Your task to perform on an android device: toggle sleep mode Image 0: 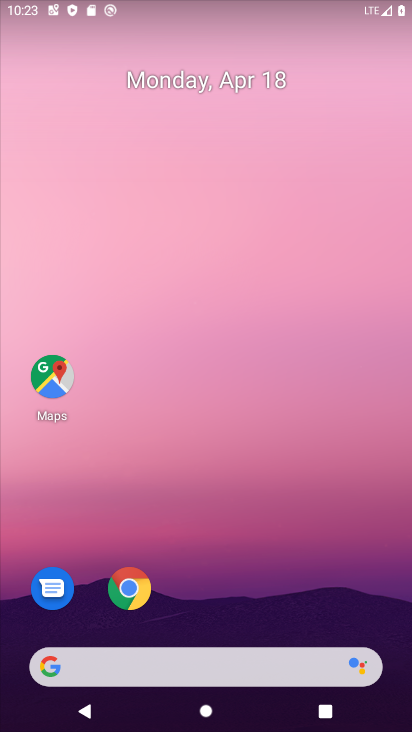
Step 0: drag from (398, 640) to (304, 92)
Your task to perform on an android device: toggle sleep mode Image 1: 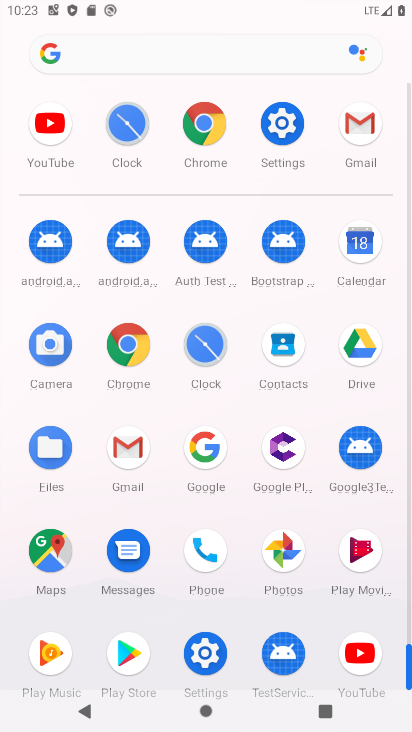
Step 1: click (204, 650)
Your task to perform on an android device: toggle sleep mode Image 2: 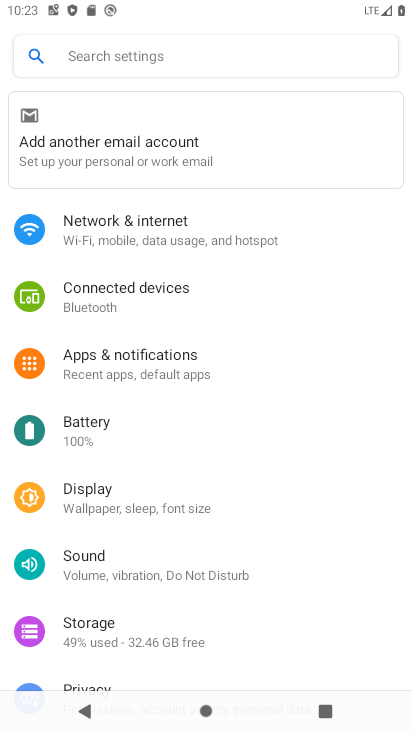
Step 2: click (97, 503)
Your task to perform on an android device: toggle sleep mode Image 3: 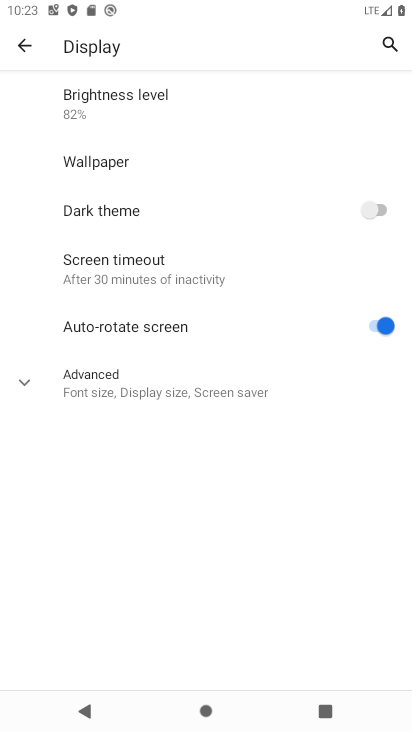
Step 3: click (25, 382)
Your task to perform on an android device: toggle sleep mode Image 4: 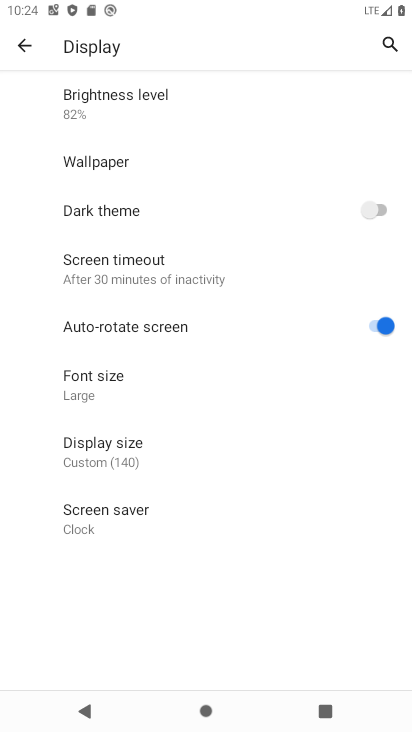
Step 4: task complete